Your task to perform on an android device: manage bookmarks in the chrome app Image 0: 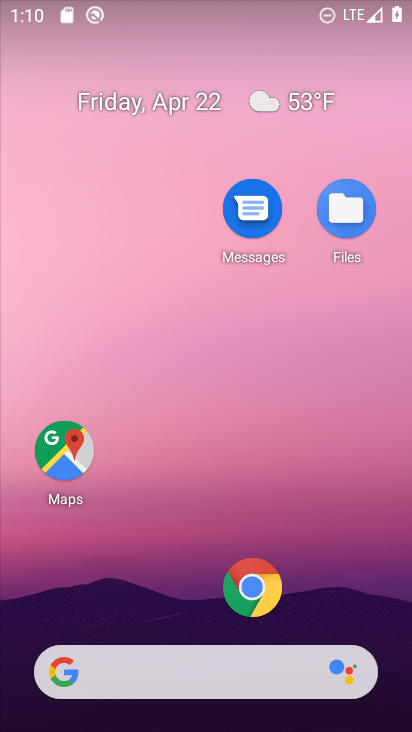
Step 0: click (257, 589)
Your task to perform on an android device: manage bookmarks in the chrome app Image 1: 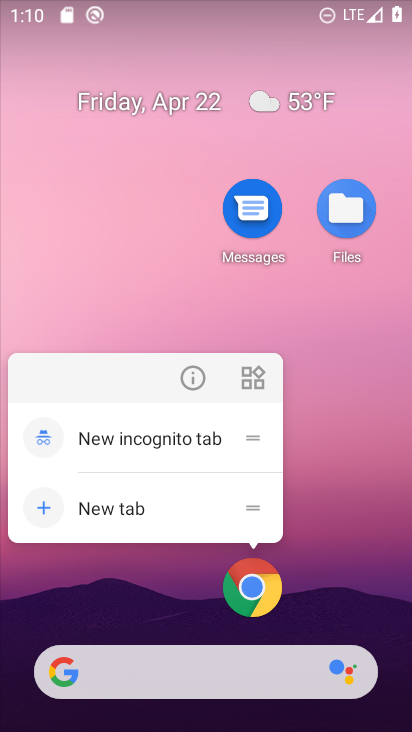
Step 1: click (201, 379)
Your task to perform on an android device: manage bookmarks in the chrome app Image 2: 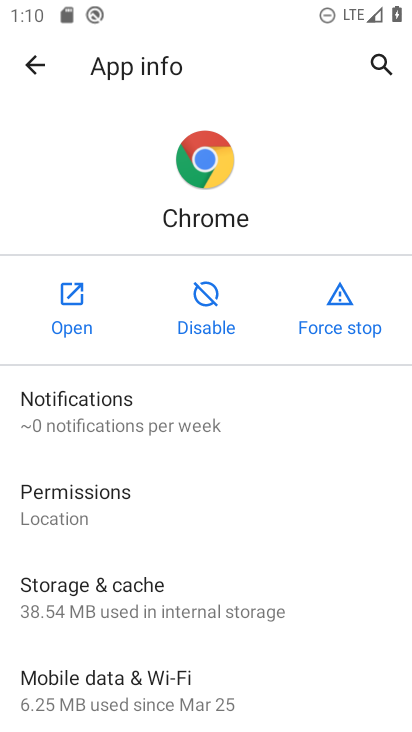
Step 2: click (76, 324)
Your task to perform on an android device: manage bookmarks in the chrome app Image 3: 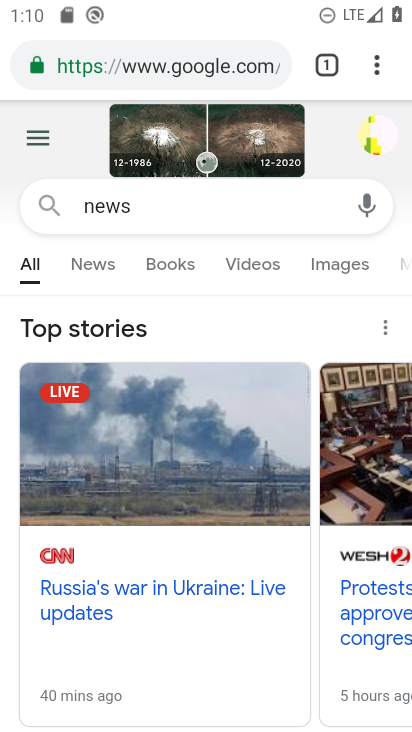
Step 3: click (372, 68)
Your task to perform on an android device: manage bookmarks in the chrome app Image 4: 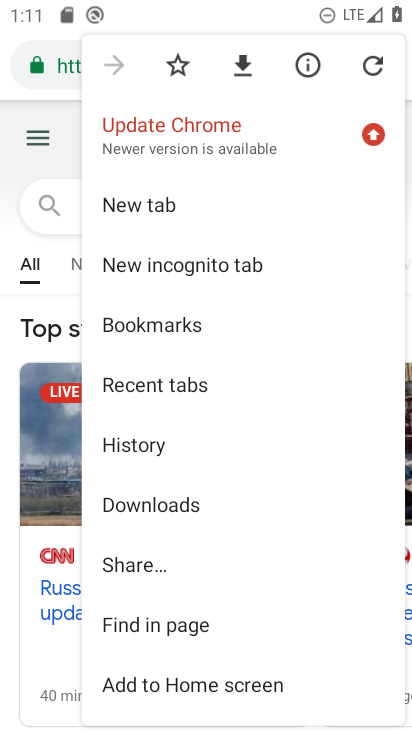
Step 4: click (155, 326)
Your task to perform on an android device: manage bookmarks in the chrome app Image 5: 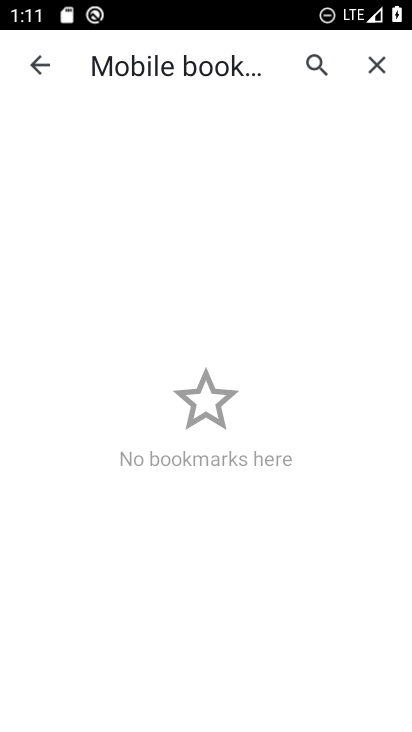
Step 5: task complete